Your task to perform on an android device: change the upload size in google photos Image 0: 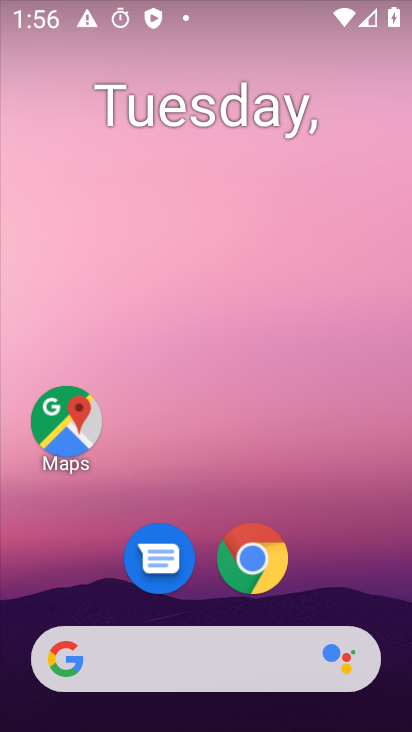
Step 0: drag from (206, 463) to (232, 3)
Your task to perform on an android device: change the upload size in google photos Image 1: 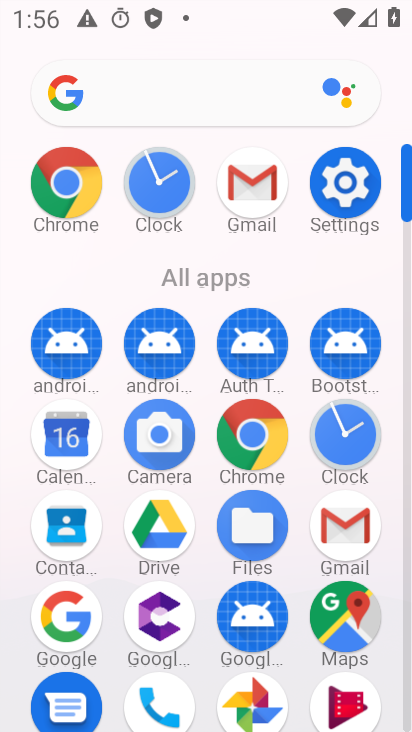
Step 1: click (246, 687)
Your task to perform on an android device: change the upload size in google photos Image 2: 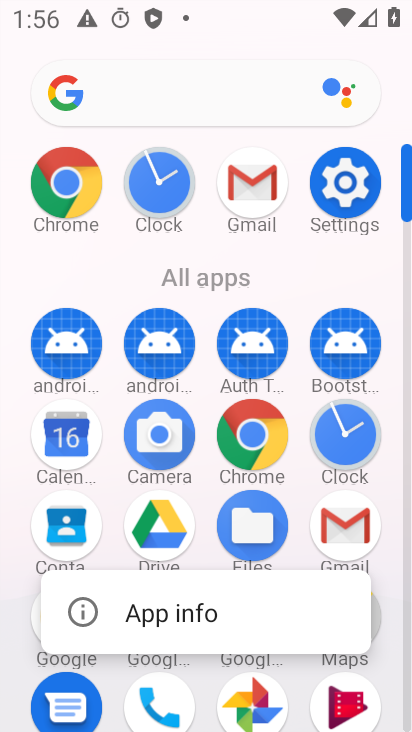
Step 2: click (236, 687)
Your task to perform on an android device: change the upload size in google photos Image 3: 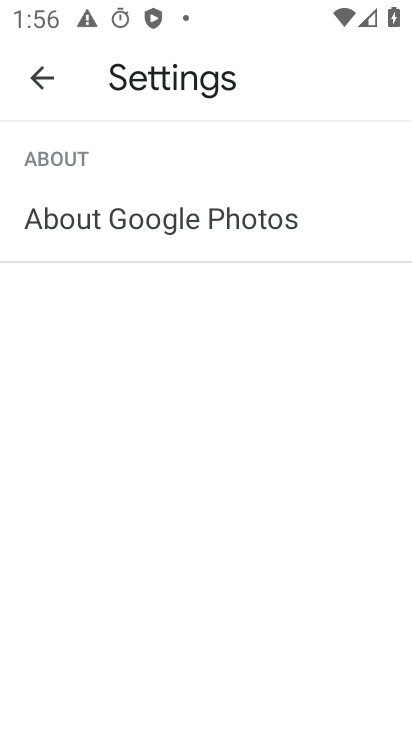
Step 3: click (39, 77)
Your task to perform on an android device: change the upload size in google photos Image 4: 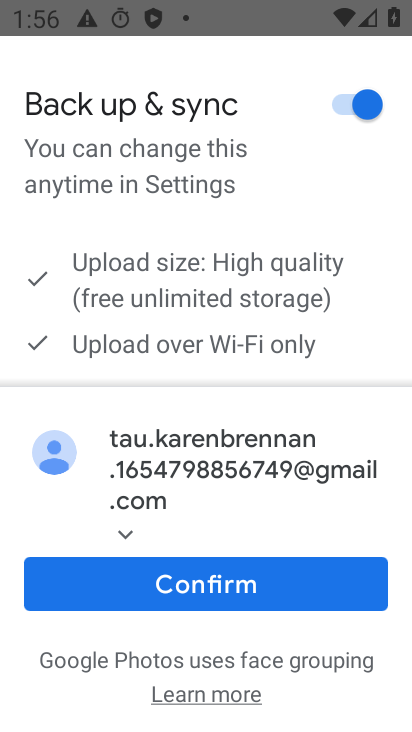
Step 4: click (193, 579)
Your task to perform on an android device: change the upload size in google photos Image 5: 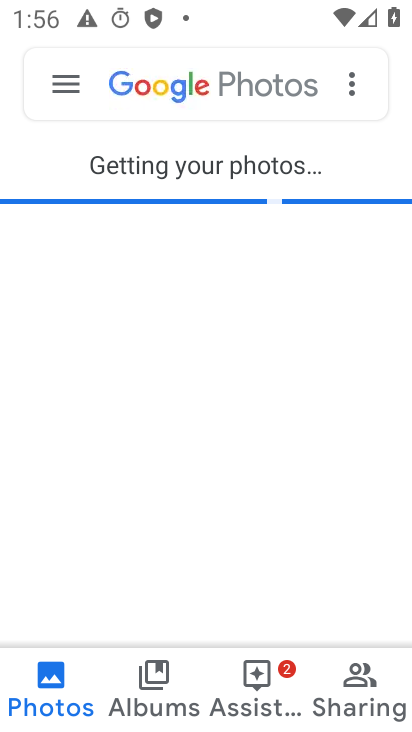
Step 5: click (56, 69)
Your task to perform on an android device: change the upload size in google photos Image 6: 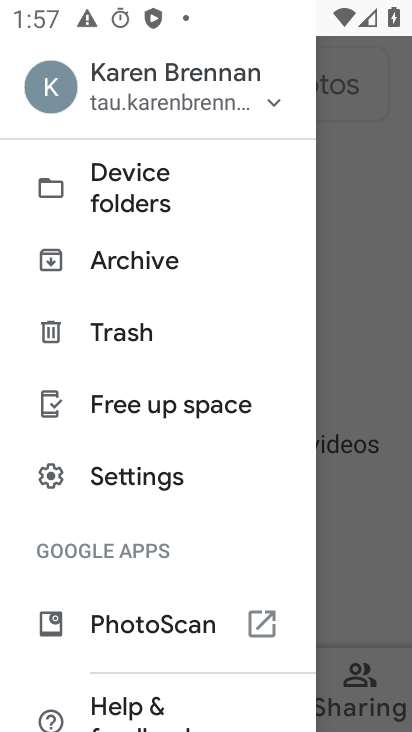
Step 6: drag from (104, 612) to (124, 304)
Your task to perform on an android device: change the upload size in google photos Image 7: 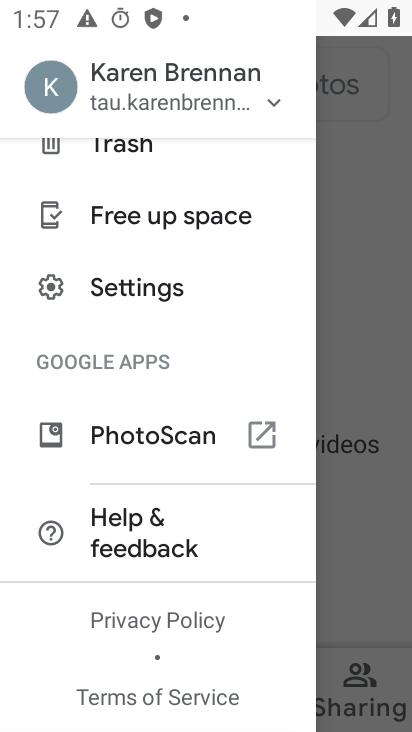
Step 7: click (106, 287)
Your task to perform on an android device: change the upload size in google photos Image 8: 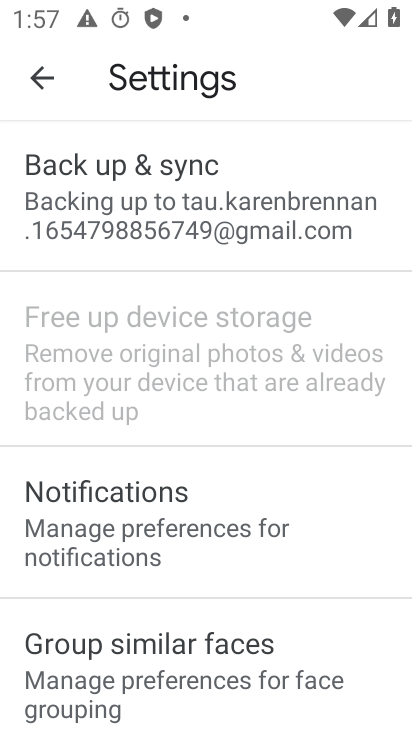
Step 8: click (160, 205)
Your task to perform on an android device: change the upload size in google photos Image 9: 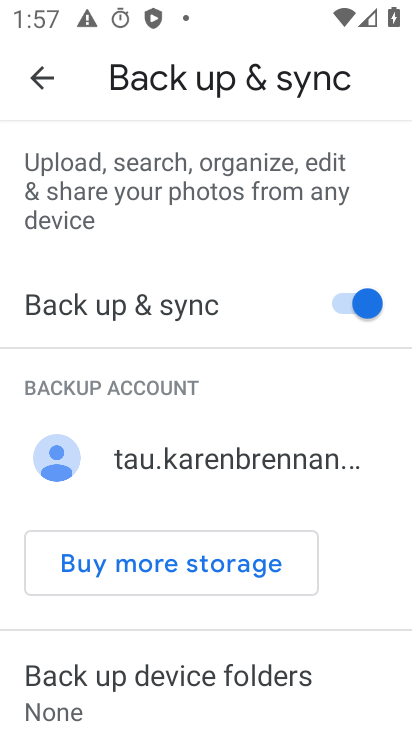
Step 9: drag from (180, 630) to (178, 234)
Your task to perform on an android device: change the upload size in google photos Image 10: 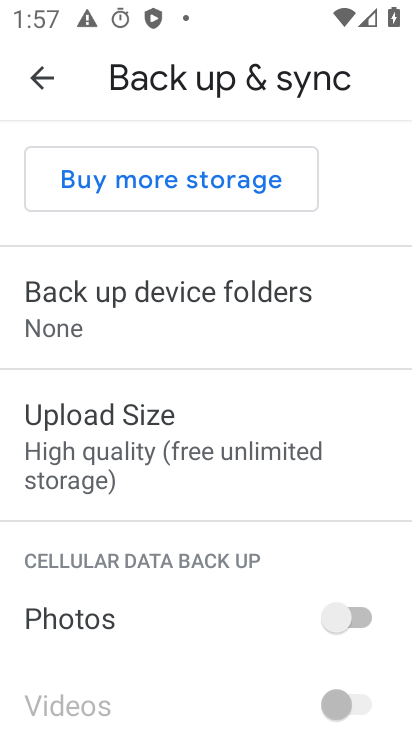
Step 10: click (174, 423)
Your task to perform on an android device: change the upload size in google photos Image 11: 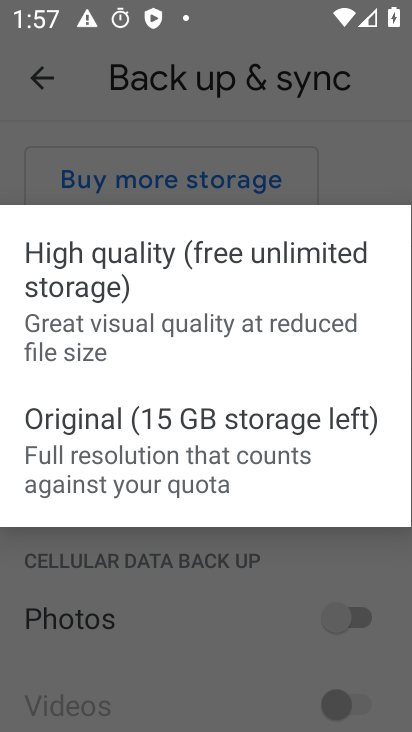
Step 11: click (173, 424)
Your task to perform on an android device: change the upload size in google photos Image 12: 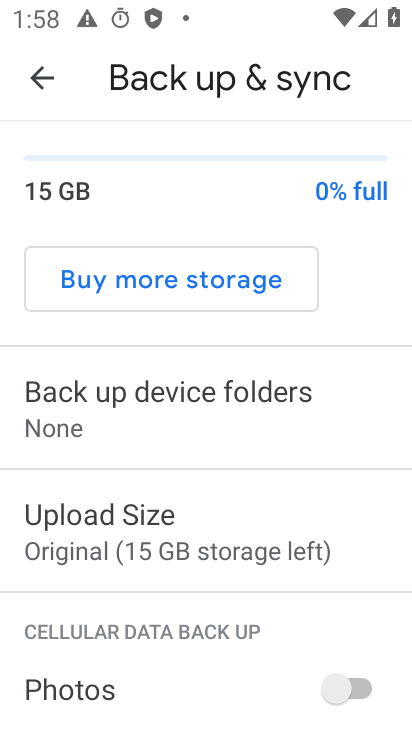
Step 12: task complete